Your task to perform on an android device: turn on showing notifications on the lock screen Image 0: 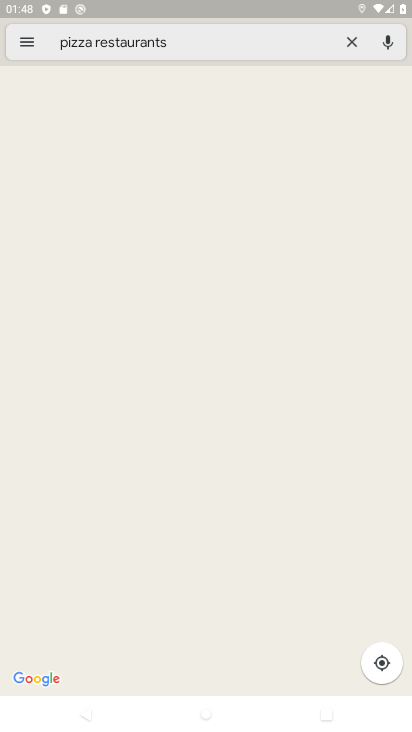
Step 0: press home button
Your task to perform on an android device: turn on showing notifications on the lock screen Image 1: 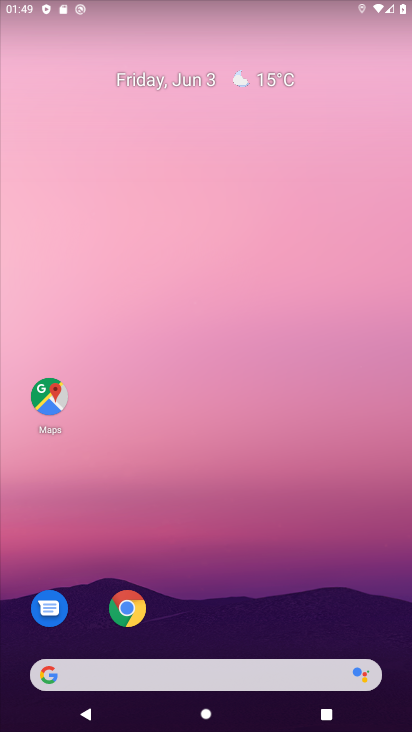
Step 1: drag from (305, 425) to (287, 187)
Your task to perform on an android device: turn on showing notifications on the lock screen Image 2: 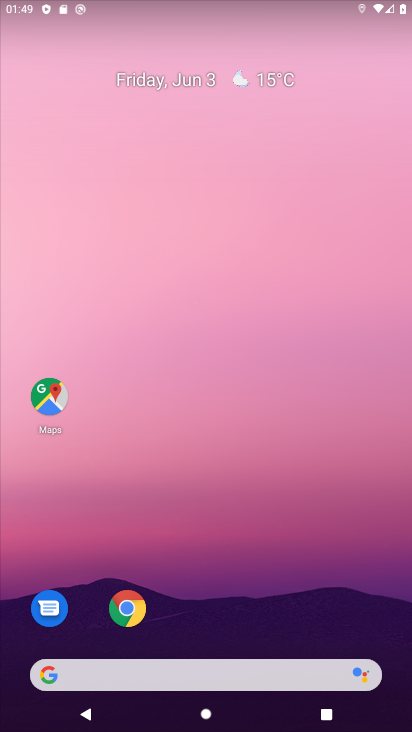
Step 2: drag from (325, 625) to (251, 195)
Your task to perform on an android device: turn on showing notifications on the lock screen Image 3: 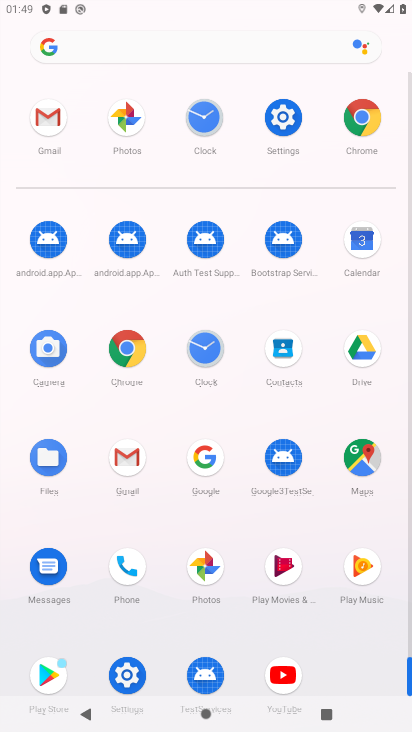
Step 3: click (295, 114)
Your task to perform on an android device: turn on showing notifications on the lock screen Image 4: 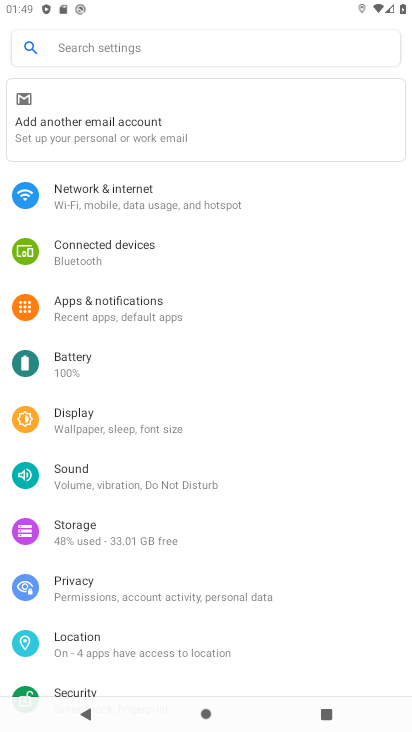
Step 4: click (141, 318)
Your task to perform on an android device: turn on showing notifications on the lock screen Image 5: 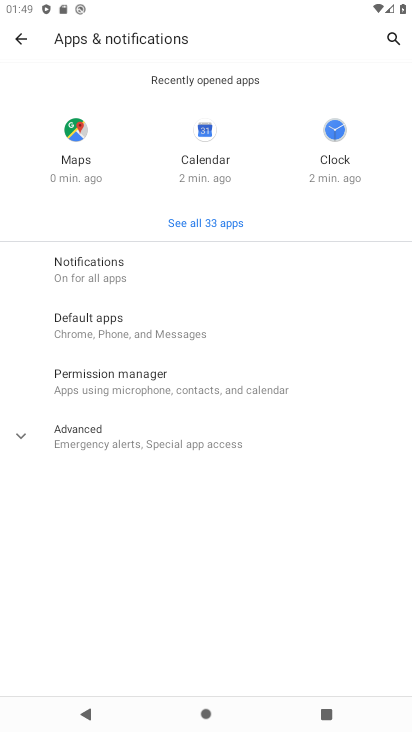
Step 5: click (127, 279)
Your task to perform on an android device: turn on showing notifications on the lock screen Image 6: 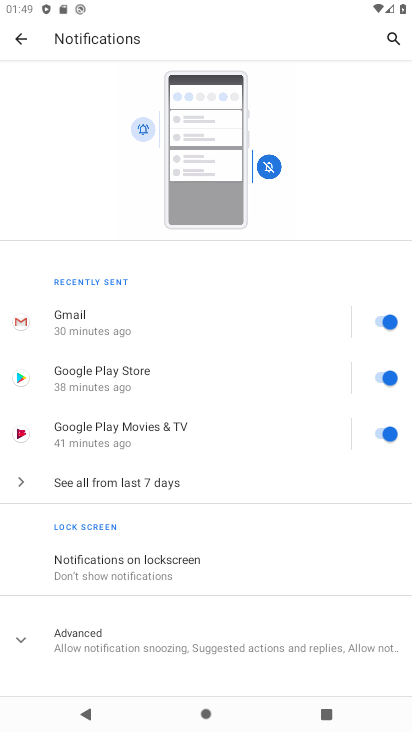
Step 6: click (151, 533)
Your task to perform on an android device: turn on showing notifications on the lock screen Image 7: 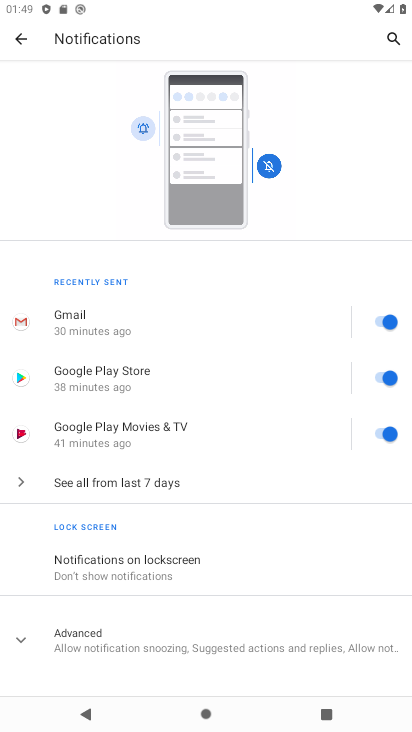
Step 7: click (143, 554)
Your task to perform on an android device: turn on showing notifications on the lock screen Image 8: 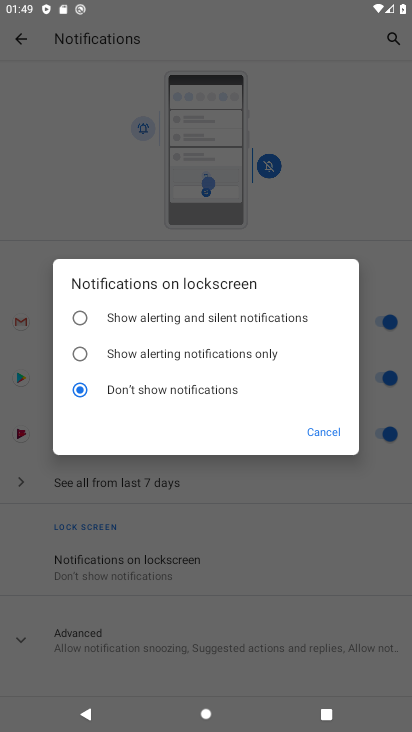
Step 8: click (221, 349)
Your task to perform on an android device: turn on showing notifications on the lock screen Image 9: 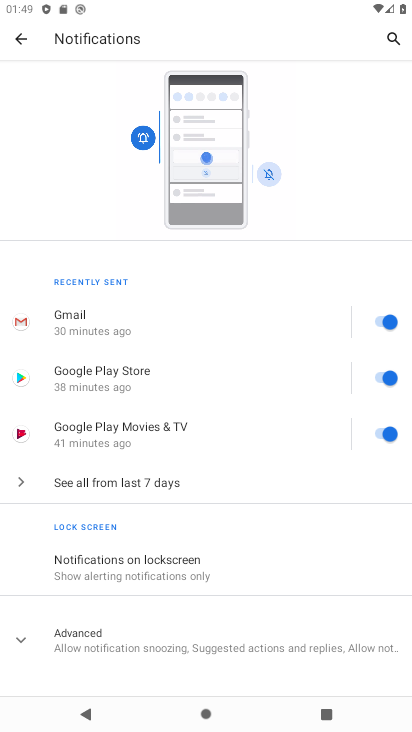
Step 9: task complete